Your task to perform on an android device: turn pop-ups off in chrome Image 0: 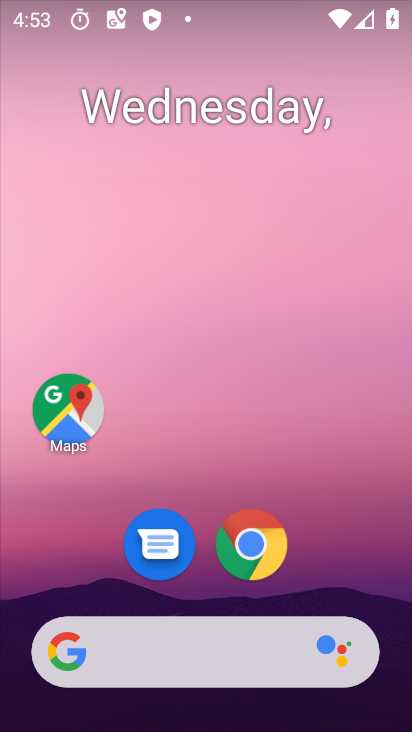
Step 0: click (264, 549)
Your task to perform on an android device: turn pop-ups off in chrome Image 1: 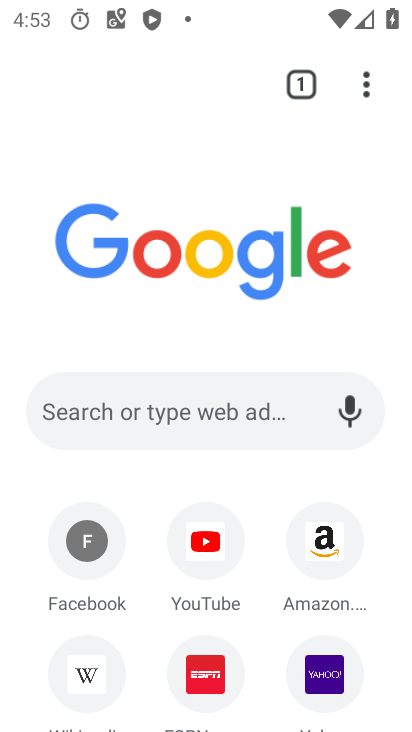
Step 1: click (376, 91)
Your task to perform on an android device: turn pop-ups off in chrome Image 2: 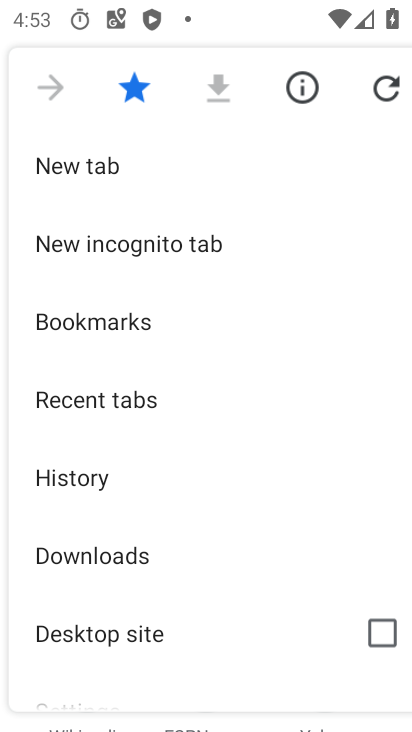
Step 2: drag from (145, 580) to (109, 90)
Your task to perform on an android device: turn pop-ups off in chrome Image 3: 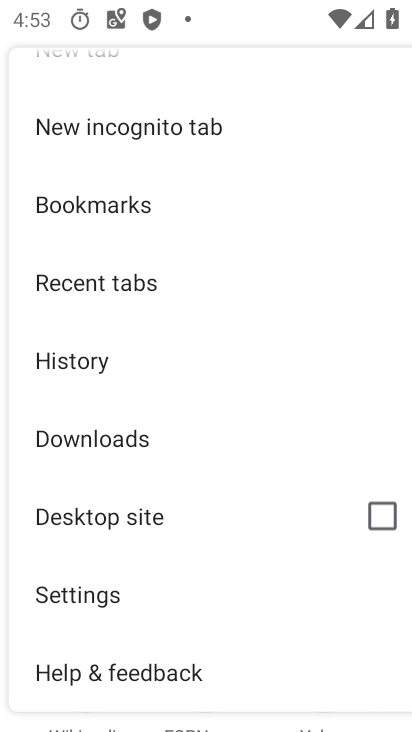
Step 3: click (111, 600)
Your task to perform on an android device: turn pop-ups off in chrome Image 4: 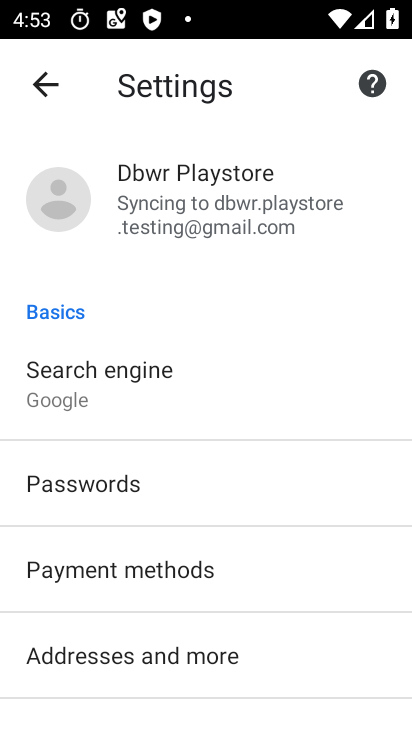
Step 4: drag from (130, 609) to (79, 46)
Your task to perform on an android device: turn pop-ups off in chrome Image 5: 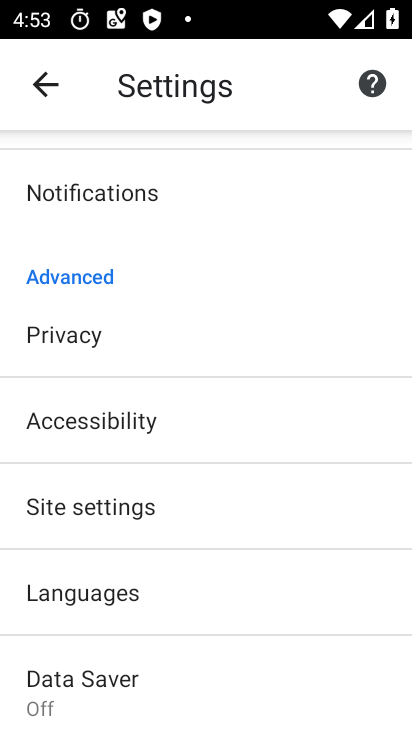
Step 5: click (113, 502)
Your task to perform on an android device: turn pop-ups off in chrome Image 6: 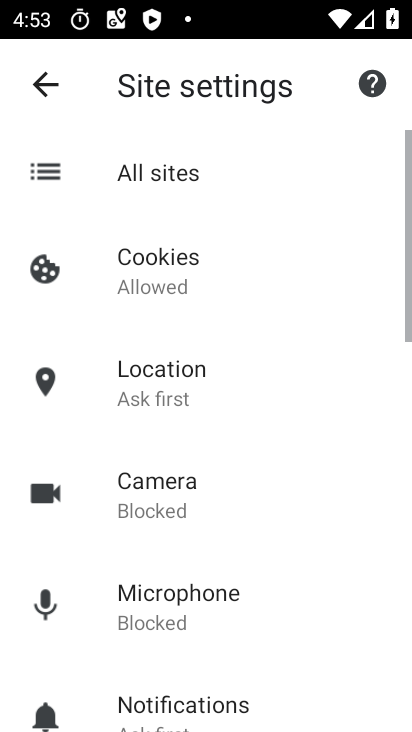
Step 6: drag from (107, 507) to (71, 45)
Your task to perform on an android device: turn pop-ups off in chrome Image 7: 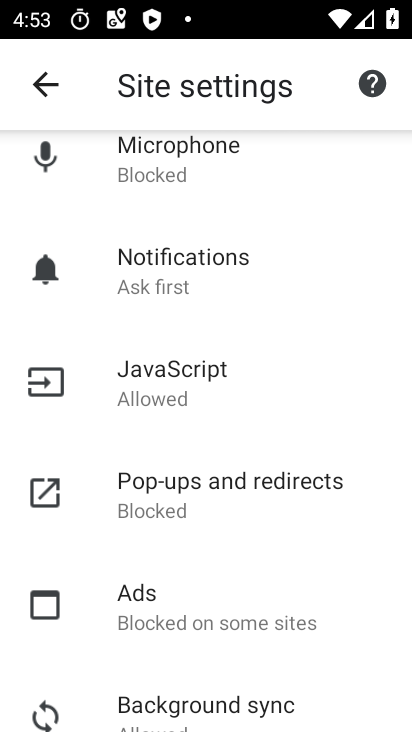
Step 7: click (152, 465)
Your task to perform on an android device: turn pop-ups off in chrome Image 8: 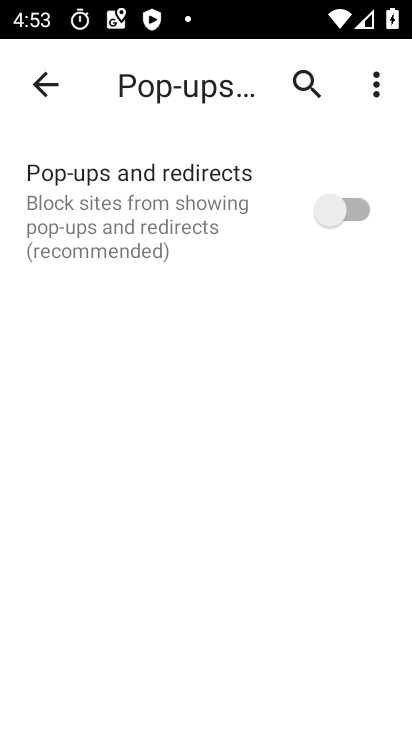
Step 8: task complete